Your task to perform on an android device: clear all cookies in the chrome app Image 0: 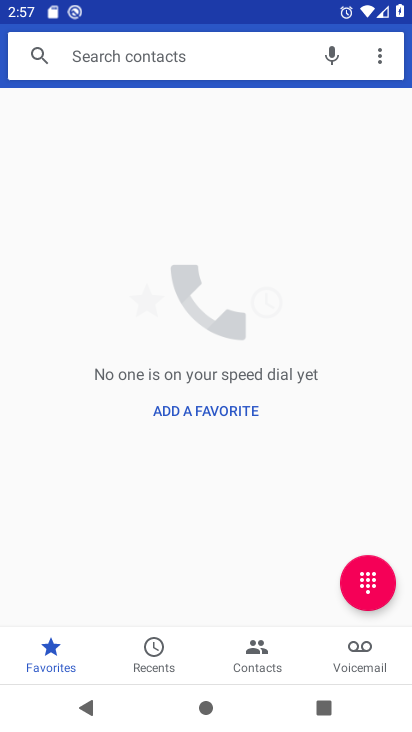
Step 0: press home button
Your task to perform on an android device: clear all cookies in the chrome app Image 1: 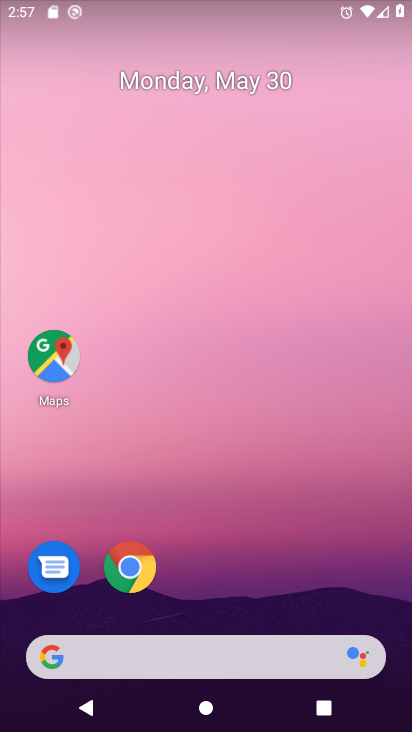
Step 1: drag from (211, 457) to (271, 116)
Your task to perform on an android device: clear all cookies in the chrome app Image 2: 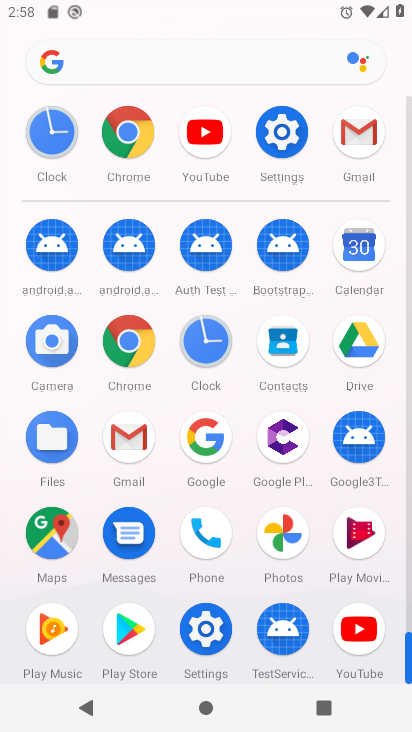
Step 2: click (130, 348)
Your task to perform on an android device: clear all cookies in the chrome app Image 3: 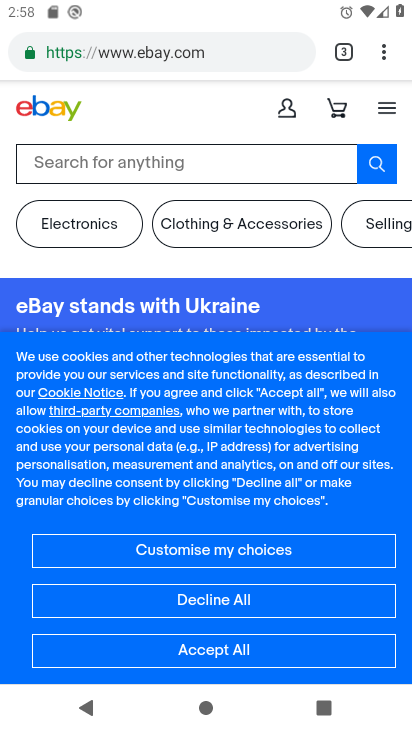
Step 3: click (376, 55)
Your task to perform on an android device: clear all cookies in the chrome app Image 4: 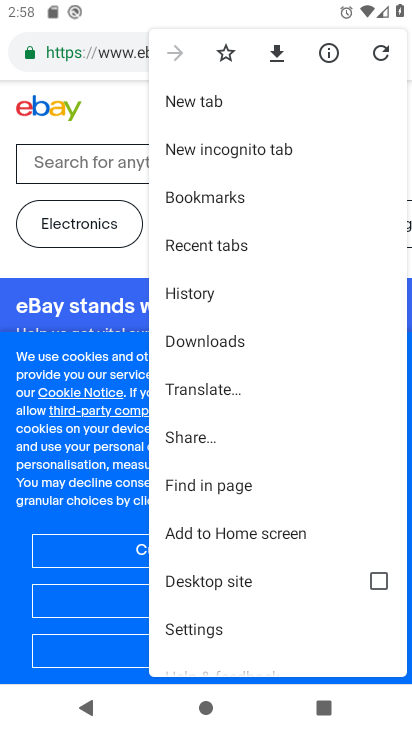
Step 4: click (205, 296)
Your task to perform on an android device: clear all cookies in the chrome app Image 5: 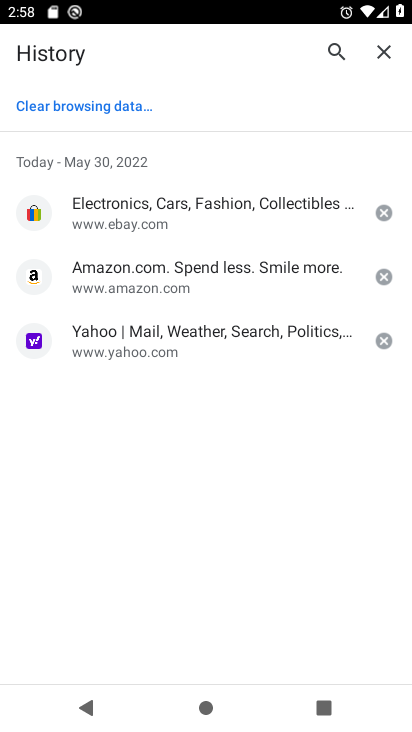
Step 5: click (118, 100)
Your task to perform on an android device: clear all cookies in the chrome app Image 6: 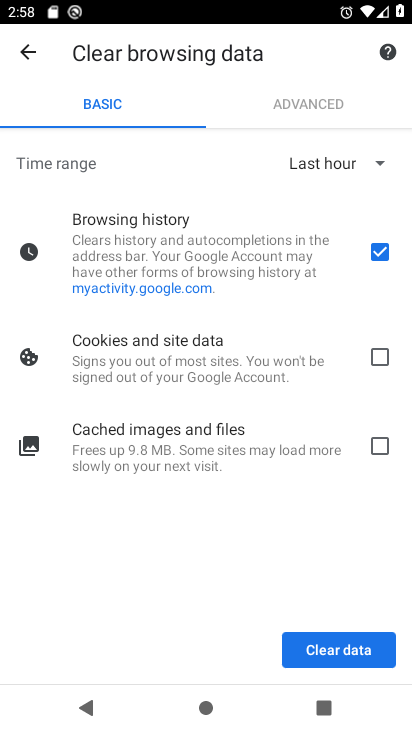
Step 6: click (396, 357)
Your task to perform on an android device: clear all cookies in the chrome app Image 7: 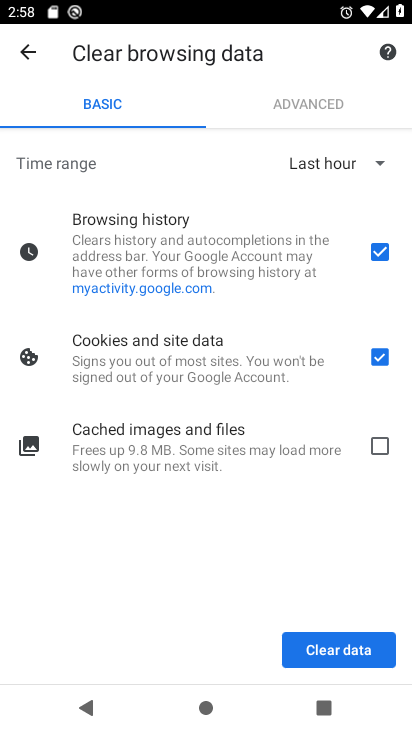
Step 7: click (383, 255)
Your task to perform on an android device: clear all cookies in the chrome app Image 8: 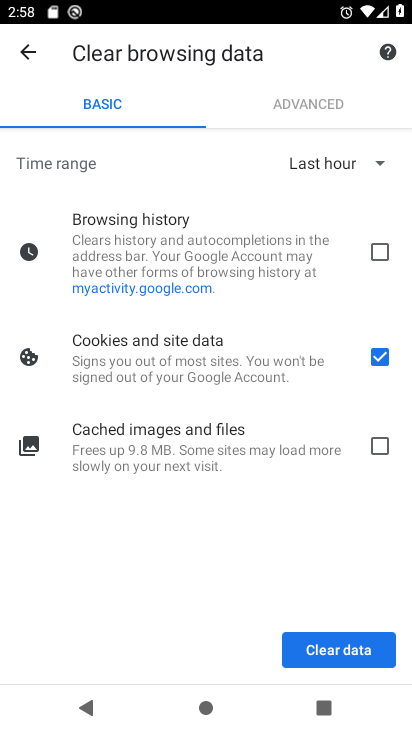
Step 8: click (328, 644)
Your task to perform on an android device: clear all cookies in the chrome app Image 9: 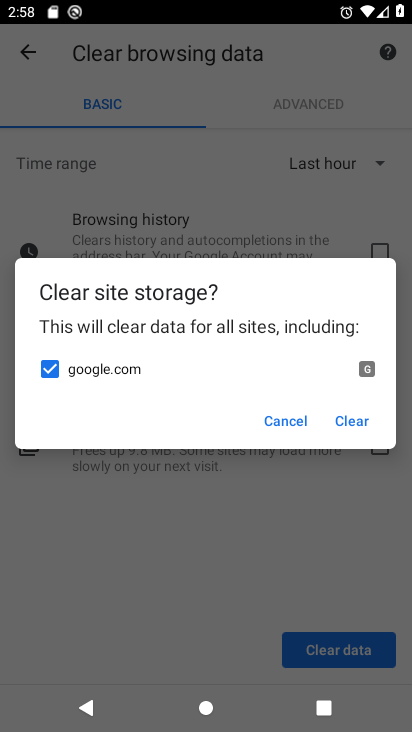
Step 9: click (355, 429)
Your task to perform on an android device: clear all cookies in the chrome app Image 10: 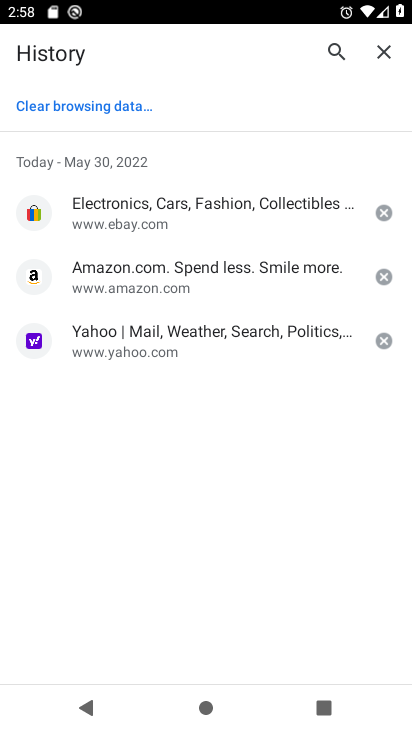
Step 10: task complete